Your task to perform on an android device: delete the emails in spam in the gmail app Image 0: 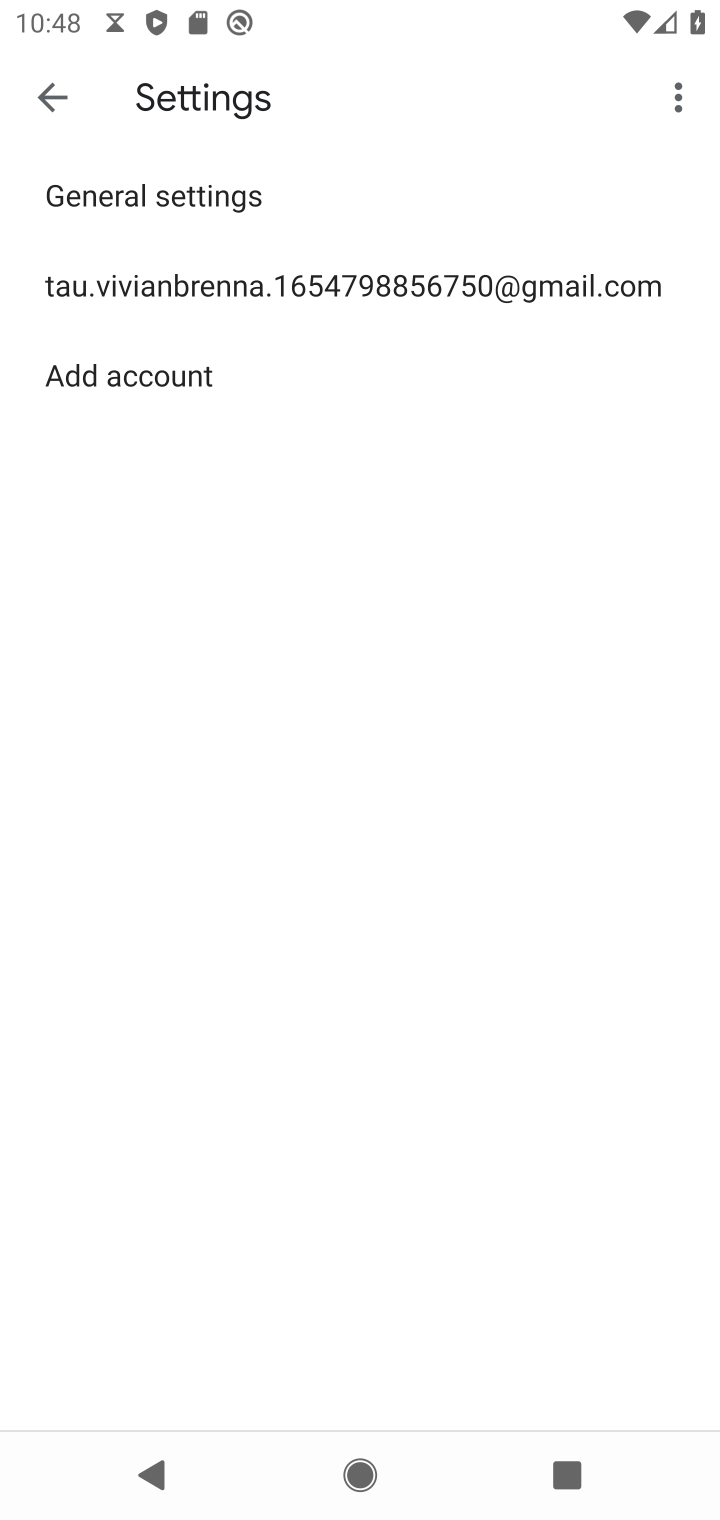
Step 0: click (64, 84)
Your task to perform on an android device: delete the emails in spam in the gmail app Image 1: 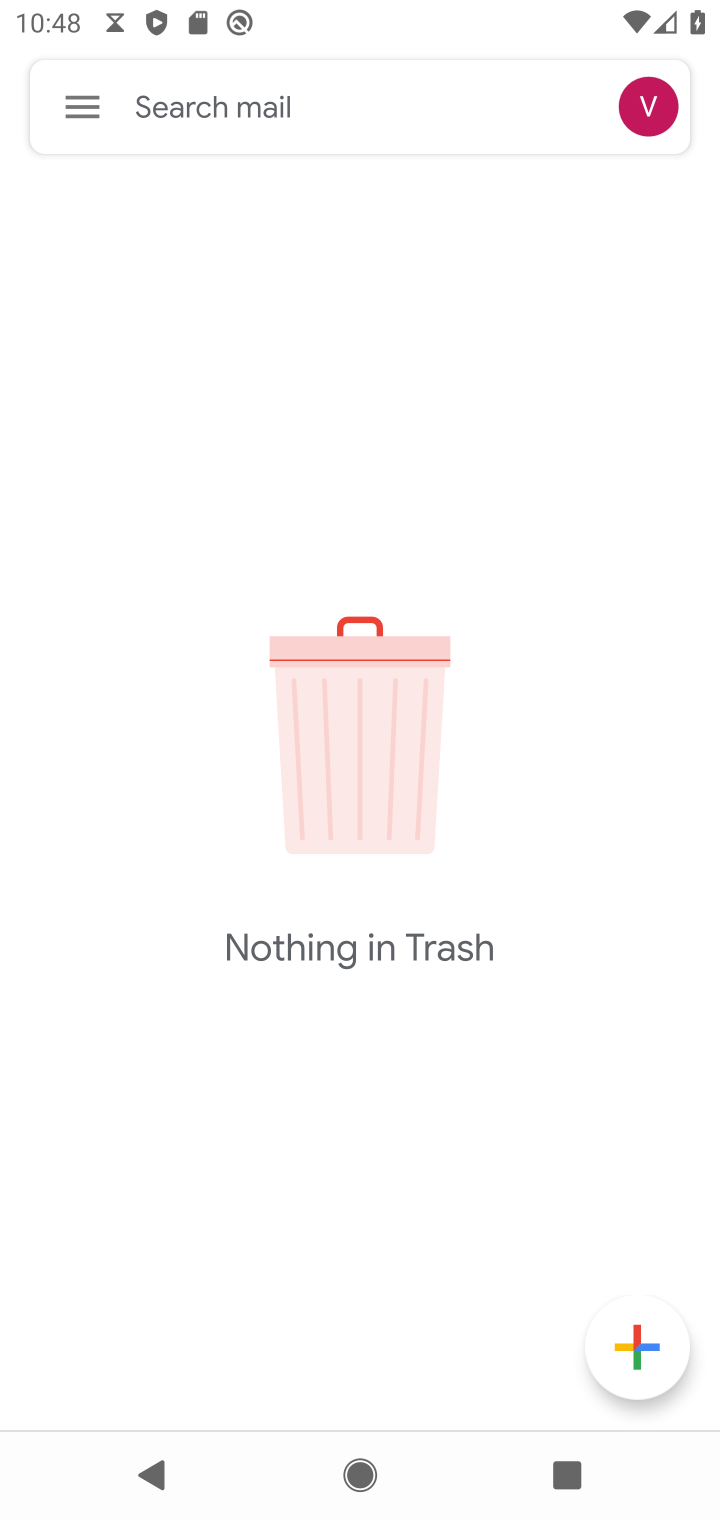
Step 1: click (69, 91)
Your task to perform on an android device: delete the emails in spam in the gmail app Image 2: 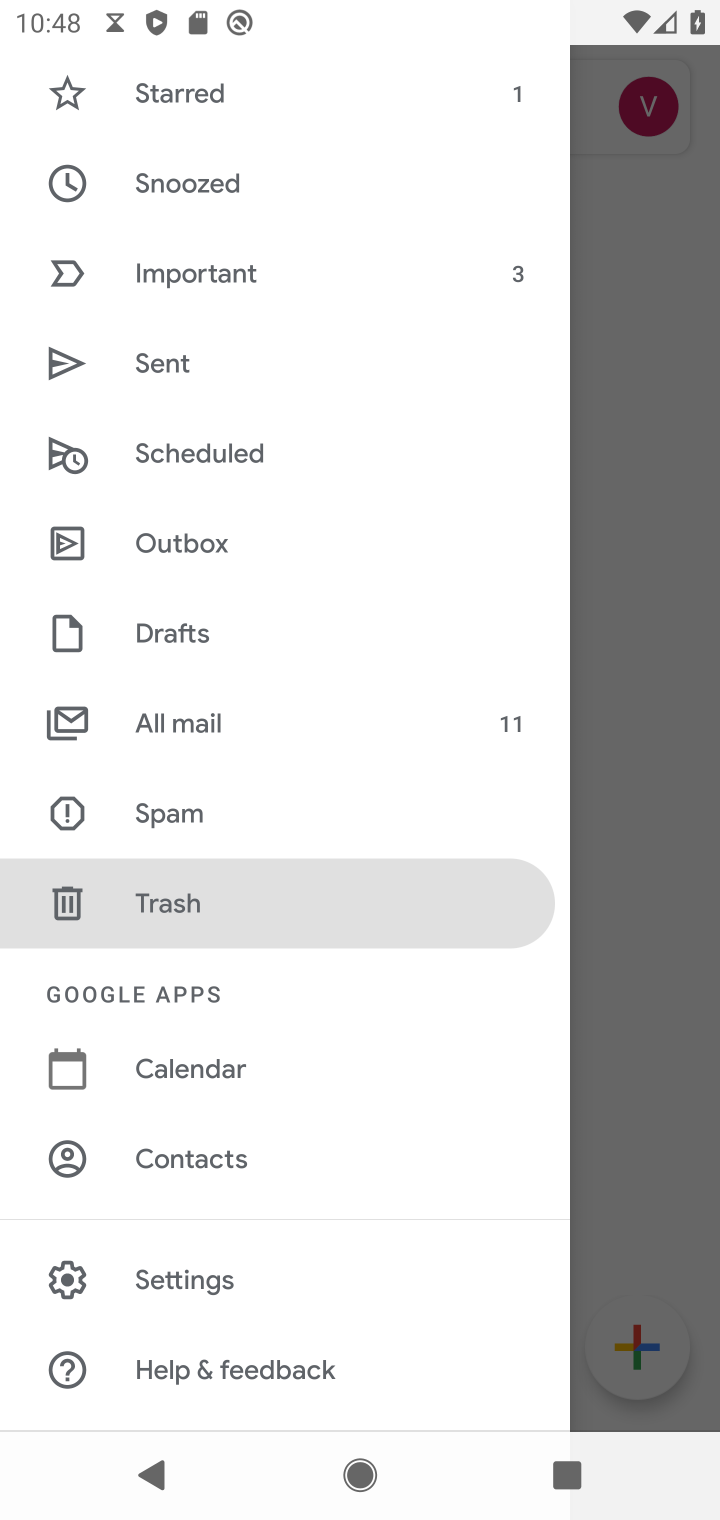
Step 2: drag from (227, 171) to (279, 533)
Your task to perform on an android device: delete the emails in spam in the gmail app Image 3: 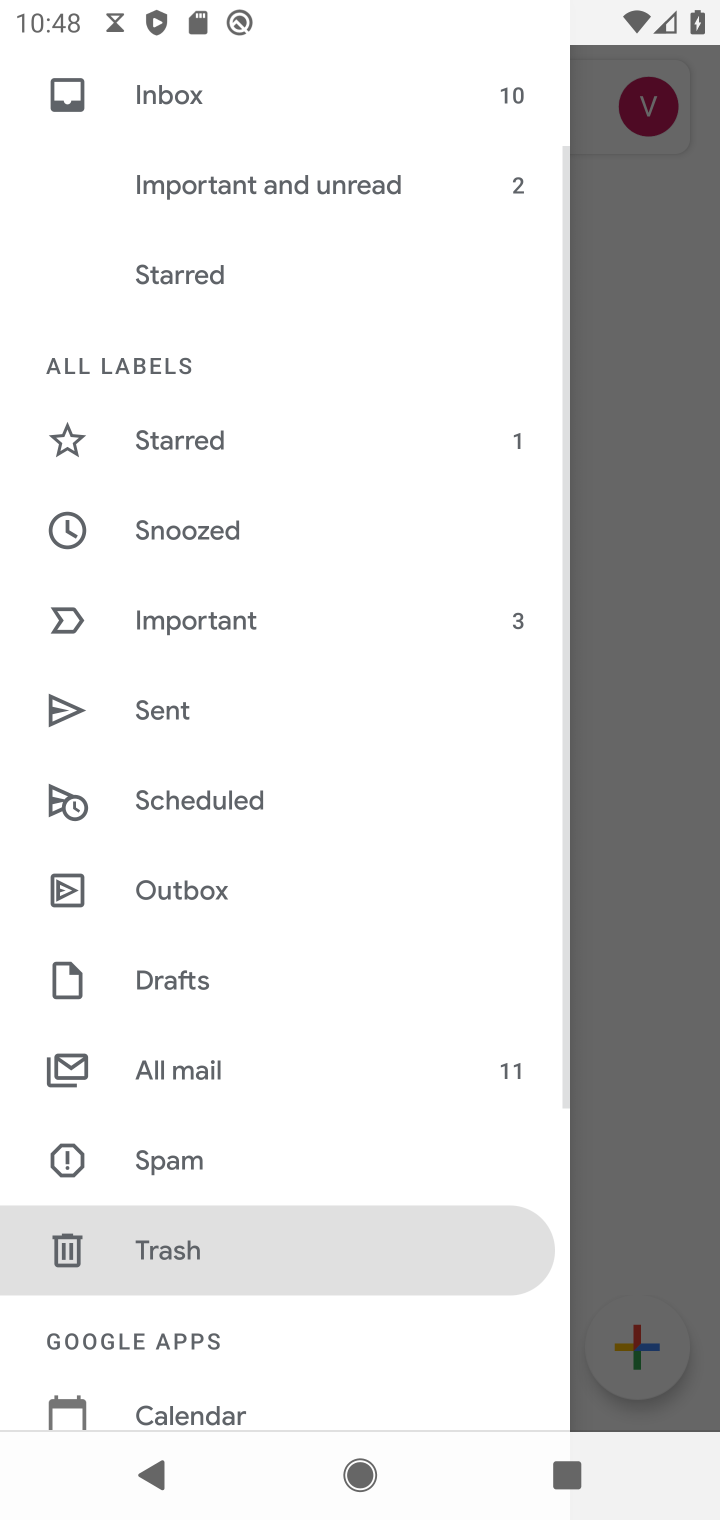
Step 3: click (186, 1156)
Your task to perform on an android device: delete the emails in spam in the gmail app Image 4: 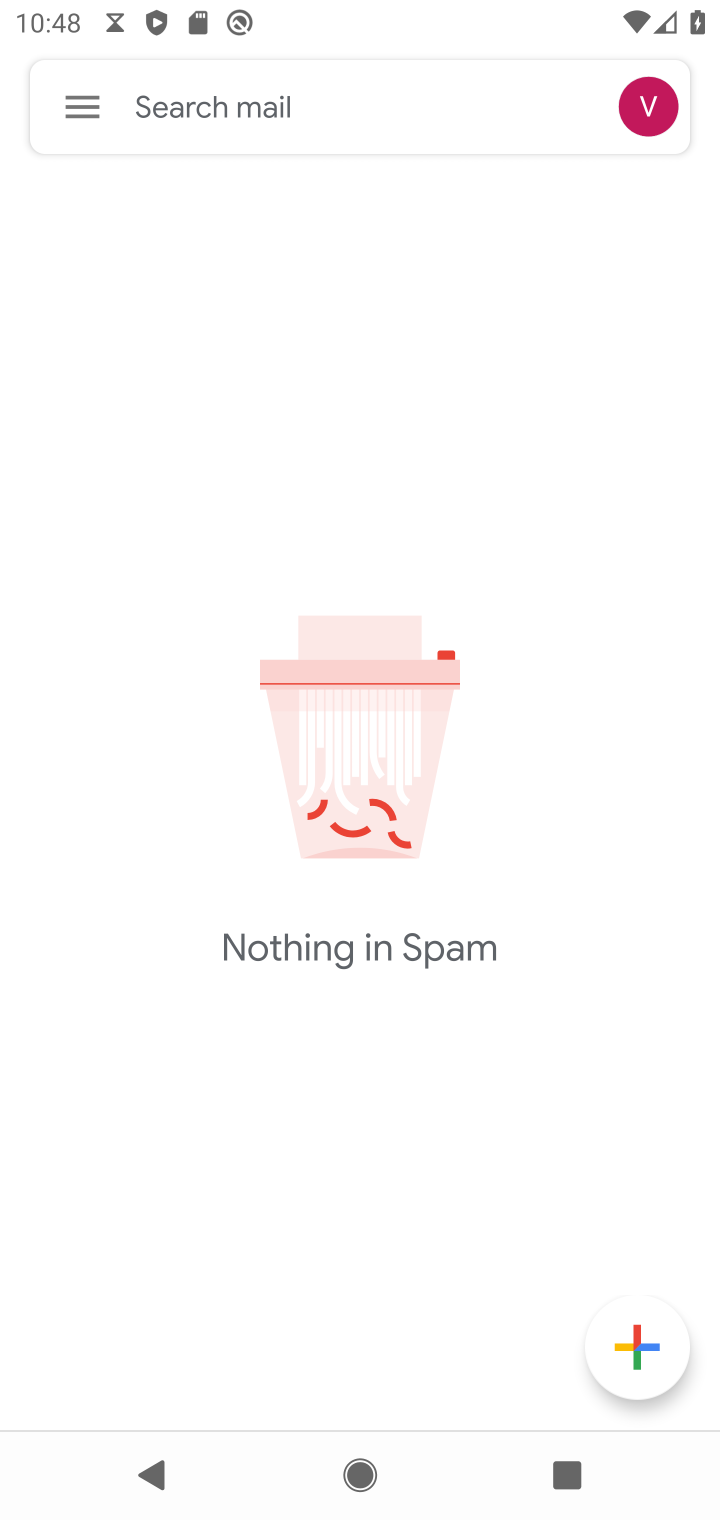
Step 4: task complete